Your task to perform on an android device: Open accessibility settings Image 0: 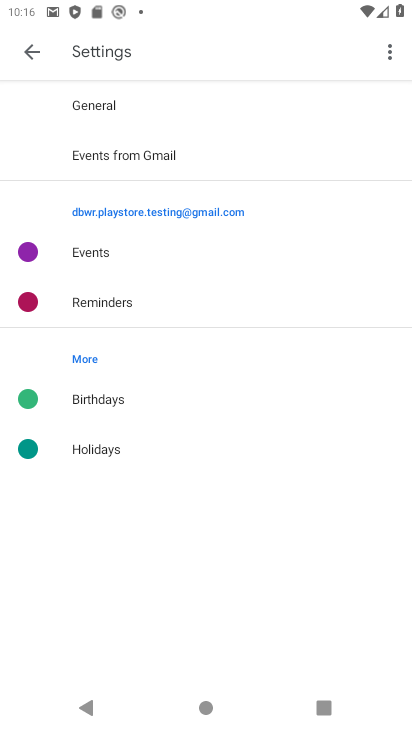
Step 0: press back button
Your task to perform on an android device: Open accessibility settings Image 1: 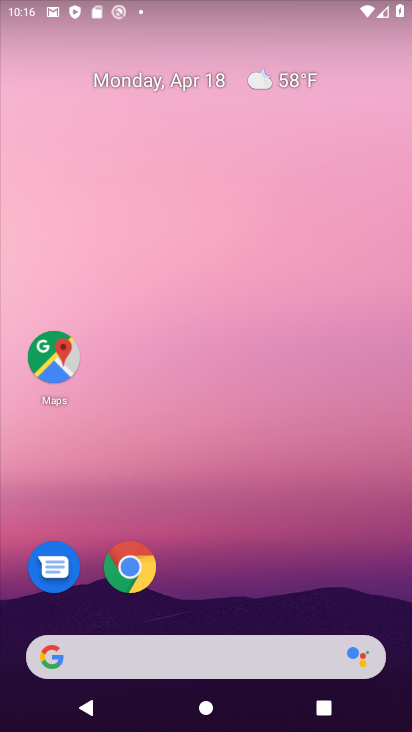
Step 1: drag from (221, 727) to (199, 93)
Your task to perform on an android device: Open accessibility settings Image 2: 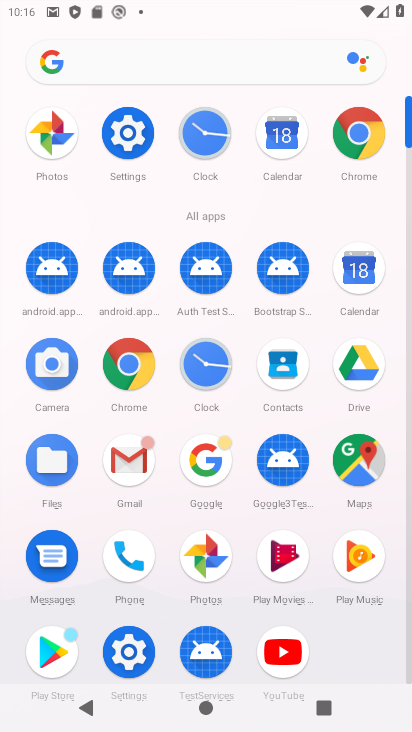
Step 2: click (128, 132)
Your task to perform on an android device: Open accessibility settings Image 3: 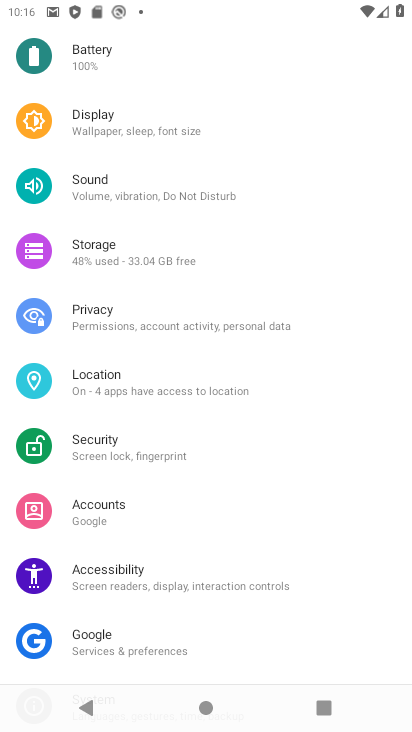
Step 3: click (93, 577)
Your task to perform on an android device: Open accessibility settings Image 4: 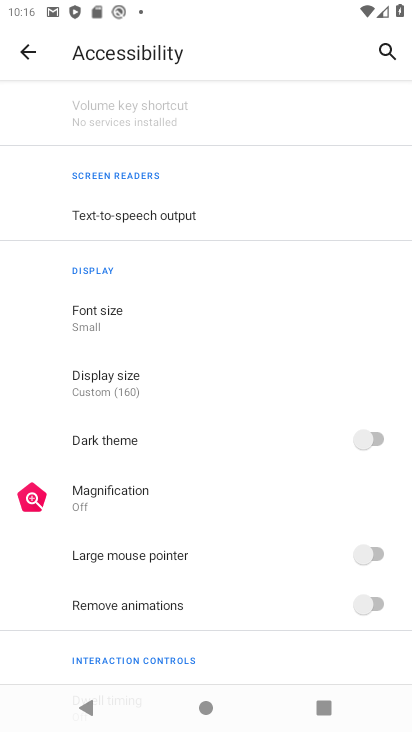
Step 4: task complete